Your task to perform on an android device: turn on translation in the chrome app Image 0: 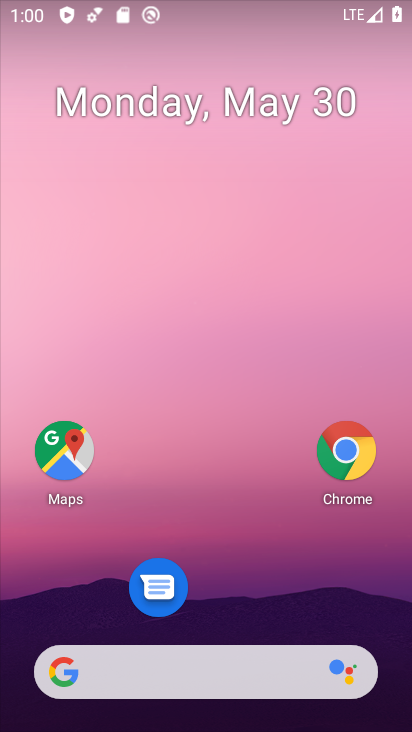
Step 0: click (349, 444)
Your task to perform on an android device: turn on translation in the chrome app Image 1: 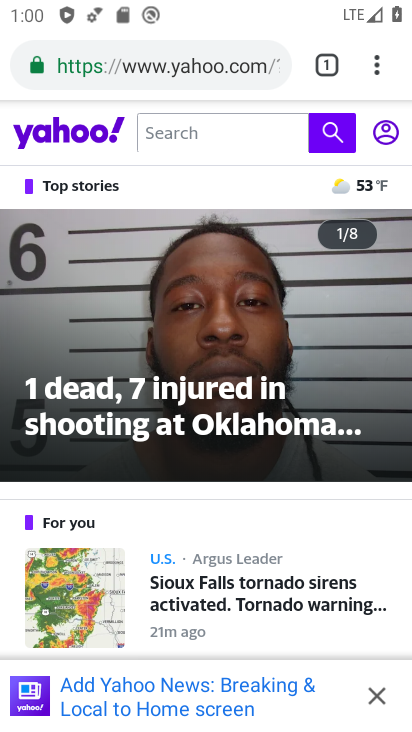
Step 1: click (366, 73)
Your task to perform on an android device: turn on translation in the chrome app Image 2: 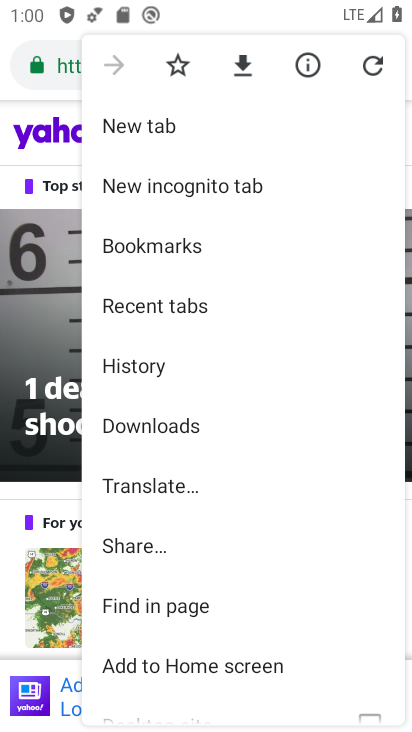
Step 2: drag from (205, 637) to (294, 250)
Your task to perform on an android device: turn on translation in the chrome app Image 3: 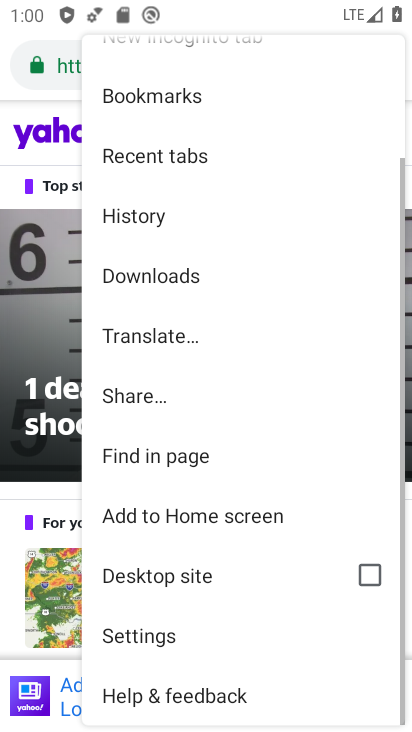
Step 3: click (145, 640)
Your task to perform on an android device: turn on translation in the chrome app Image 4: 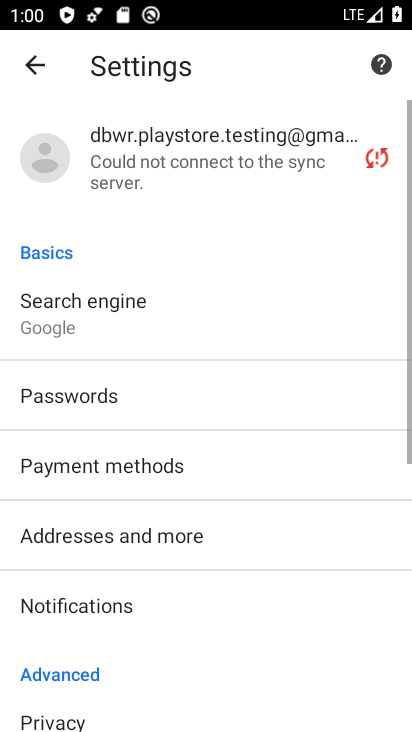
Step 4: drag from (252, 609) to (263, 213)
Your task to perform on an android device: turn on translation in the chrome app Image 5: 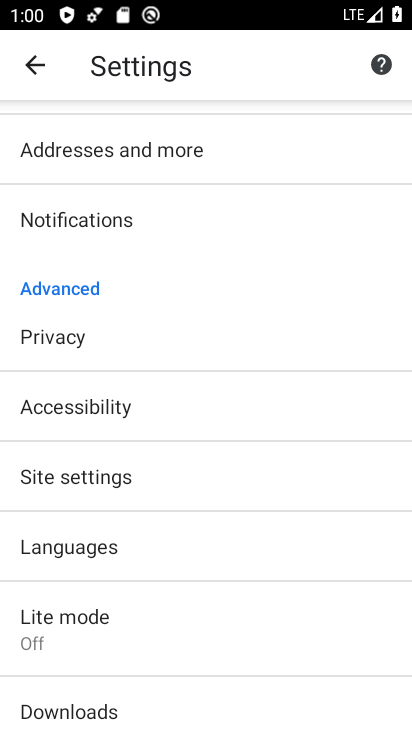
Step 5: click (83, 557)
Your task to perform on an android device: turn on translation in the chrome app Image 6: 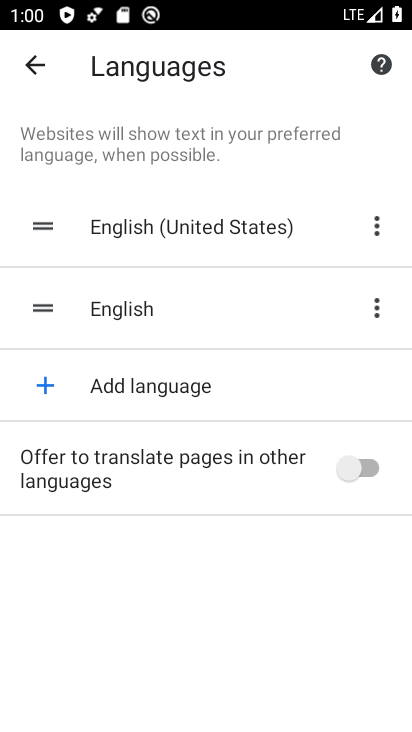
Step 6: click (353, 464)
Your task to perform on an android device: turn on translation in the chrome app Image 7: 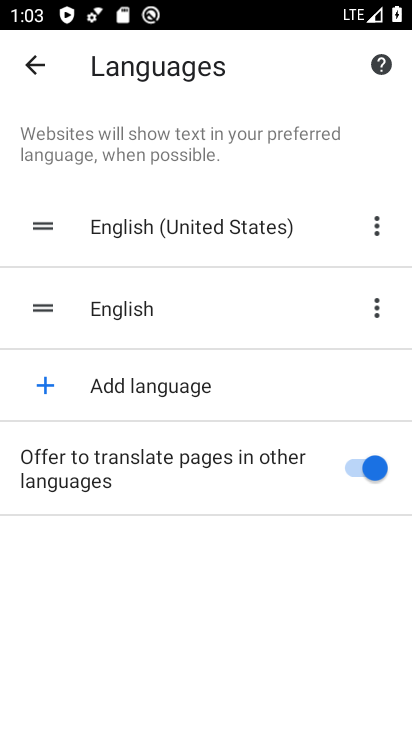
Step 7: task complete